Your task to perform on an android device: turn vacation reply on in the gmail app Image 0: 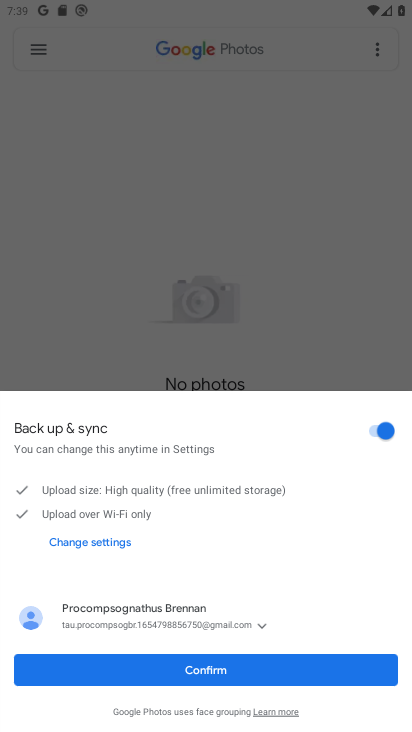
Step 0: press home button
Your task to perform on an android device: turn vacation reply on in the gmail app Image 1: 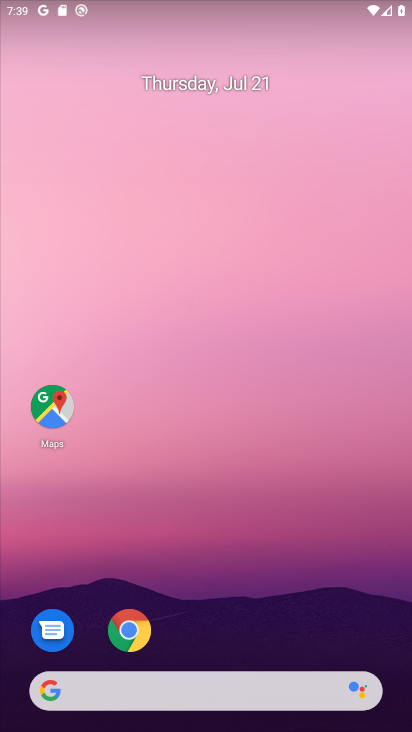
Step 1: drag from (210, 614) to (97, 30)
Your task to perform on an android device: turn vacation reply on in the gmail app Image 2: 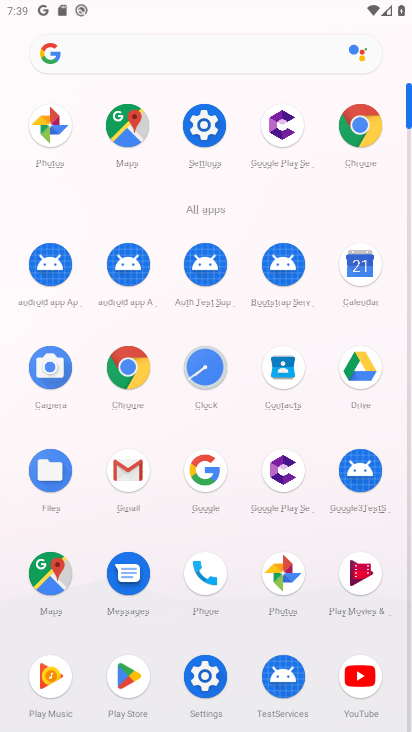
Step 2: click (140, 477)
Your task to perform on an android device: turn vacation reply on in the gmail app Image 3: 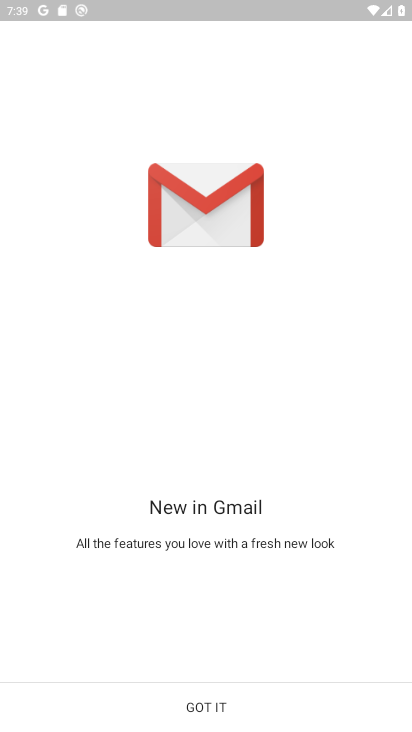
Step 3: click (196, 701)
Your task to perform on an android device: turn vacation reply on in the gmail app Image 4: 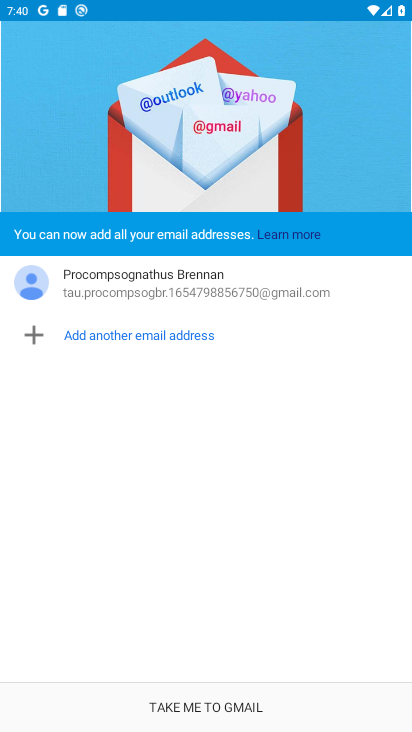
Step 4: click (269, 698)
Your task to perform on an android device: turn vacation reply on in the gmail app Image 5: 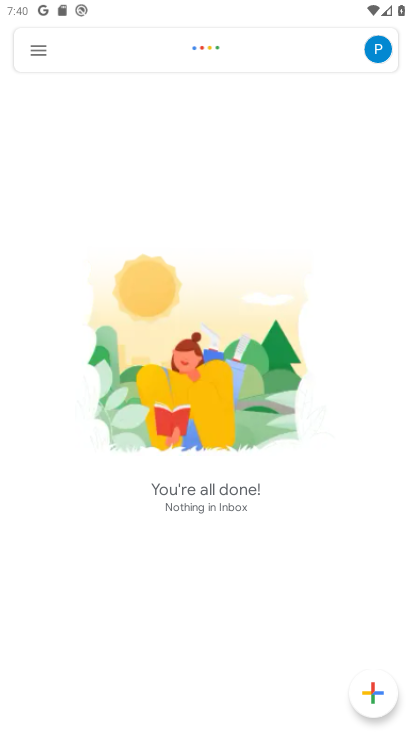
Step 5: click (46, 50)
Your task to perform on an android device: turn vacation reply on in the gmail app Image 6: 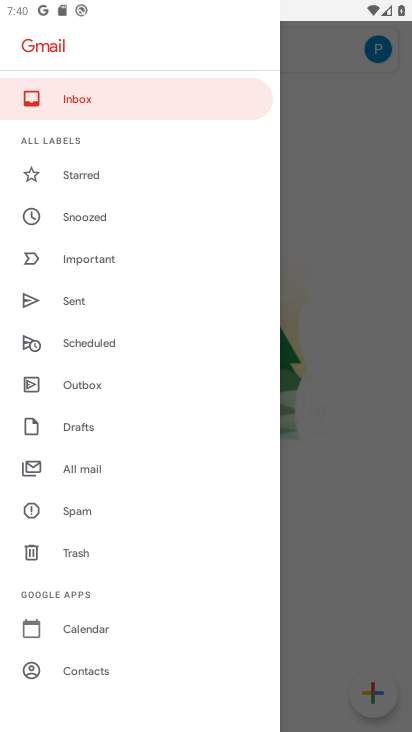
Step 6: drag from (133, 641) to (104, 206)
Your task to perform on an android device: turn vacation reply on in the gmail app Image 7: 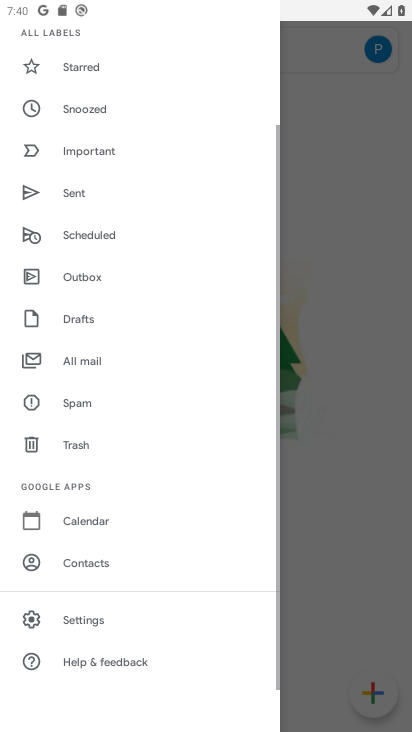
Step 7: click (95, 619)
Your task to perform on an android device: turn vacation reply on in the gmail app Image 8: 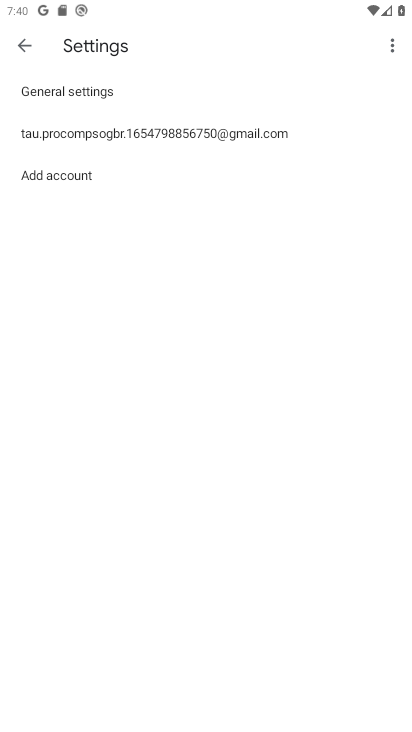
Step 8: click (78, 141)
Your task to perform on an android device: turn vacation reply on in the gmail app Image 9: 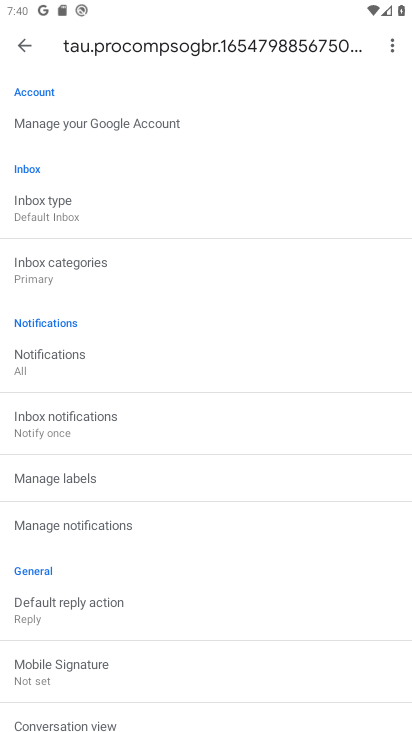
Step 9: drag from (198, 554) to (167, 147)
Your task to perform on an android device: turn vacation reply on in the gmail app Image 10: 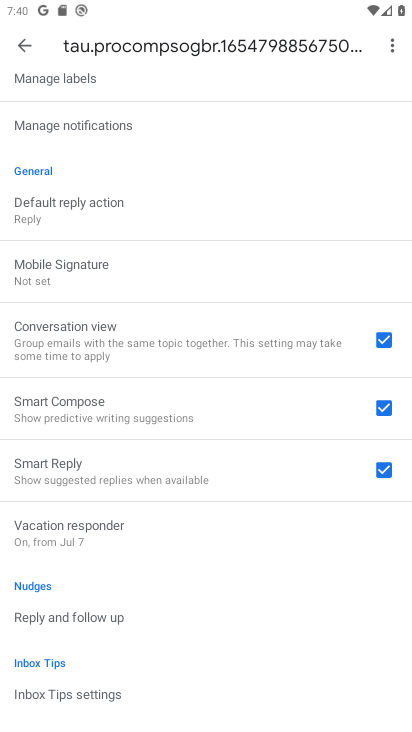
Step 10: click (114, 538)
Your task to perform on an android device: turn vacation reply on in the gmail app Image 11: 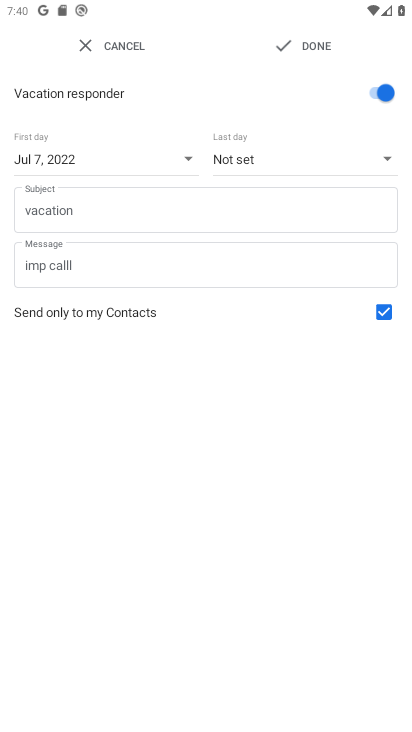
Step 11: click (319, 52)
Your task to perform on an android device: turn vacation reply on in the gmail app Image 12: 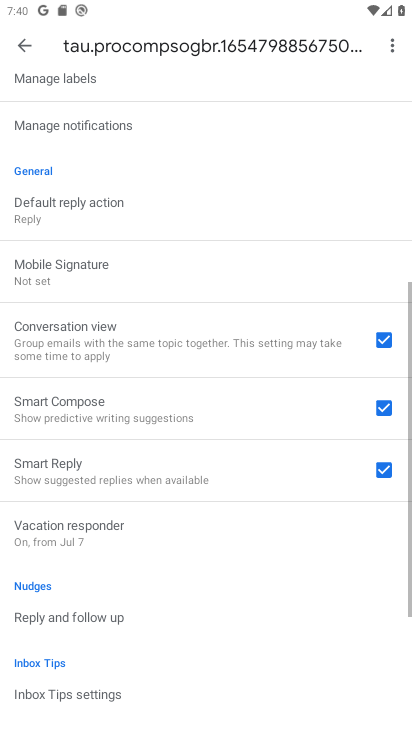
Step 12: task complete